Your task to perform on an android device: turn notification dots on Image 0: 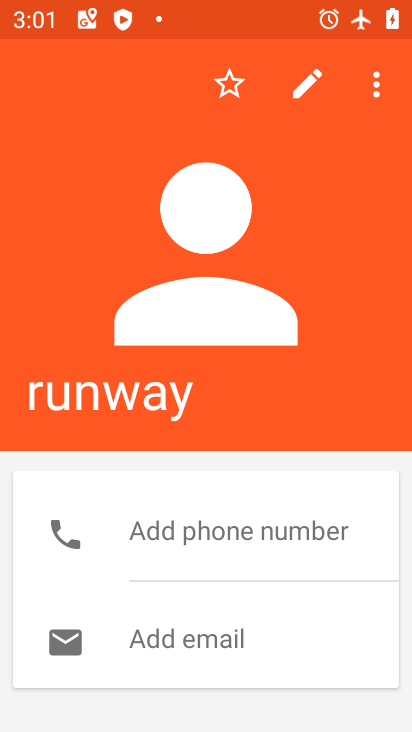
Step 0: press home button
Your task to perform on an android device: turn notification dots on Image 1: 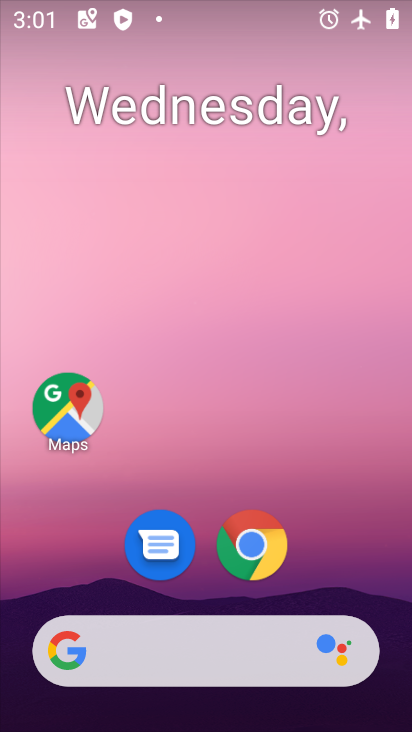
Step 1: drag from (318, 490) to (300, 152)
Your task to perform on an android device: turn notification dots on Image 2: 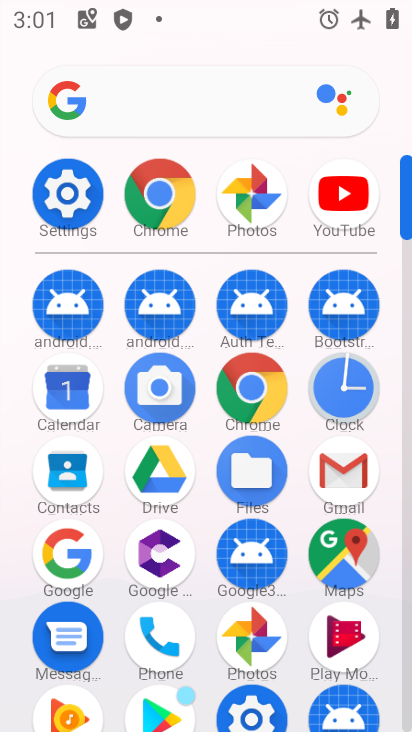
Step 2: click (62, 211)
Your task to perform on an android device: turn notification dots on Image 3: 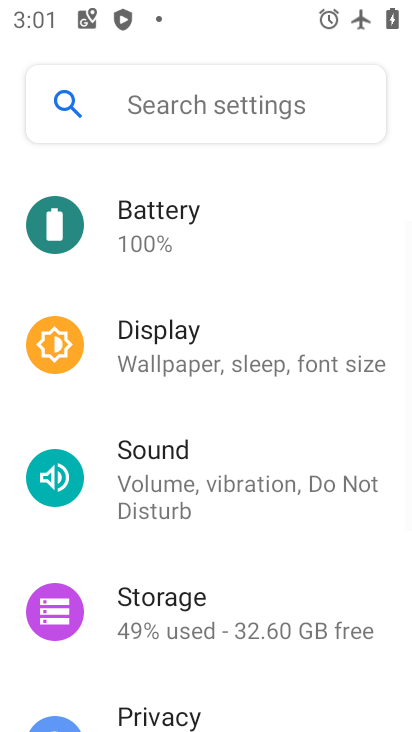
Step 3: drag from (209, 598) to (246, 262)
Your task to perform on an android device: turn notification dots on Image 4: 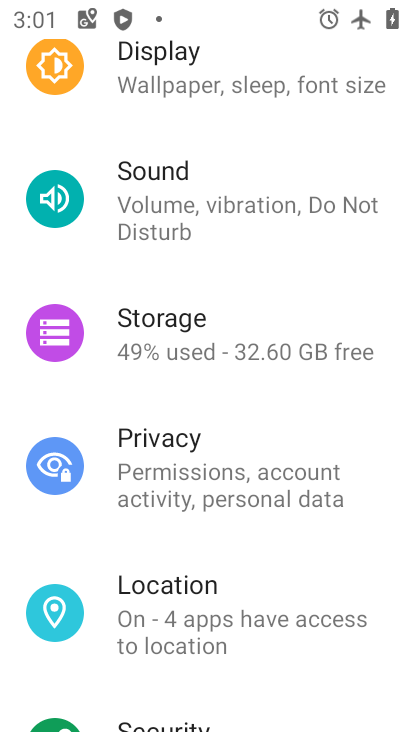
Step 4: drag from (214, 584) to (273, 268)
Your task to perform on an android device: turn notification dots on Image 5: 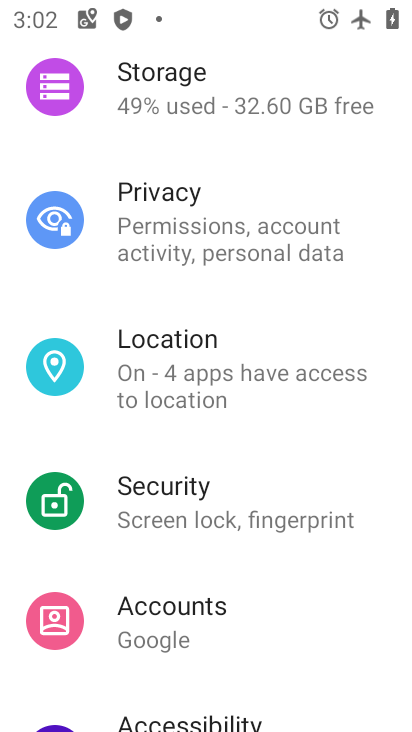
Step 5: drag from (256, 293) to (229, 688)
Your task to perform on an android device: turn notification dots on Image 6: 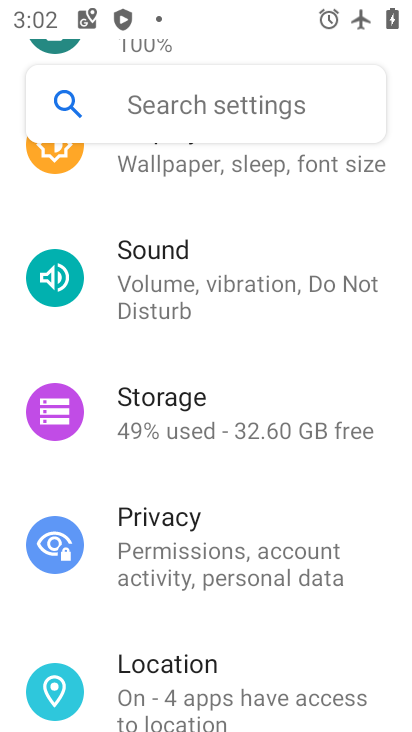
Step 6: drag from (211, 288) to (216, 630)
Your task to perform on an android device: turn notification dots on Image 7: 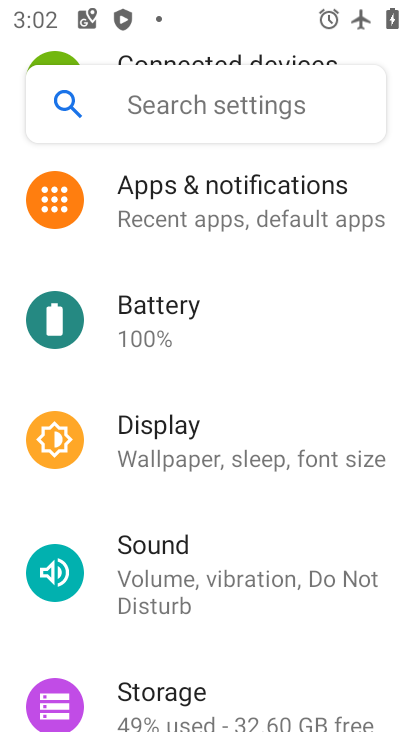
Step 7: click (269, 208)
Your task to perform on an android device: turn notification dots on Image 8: 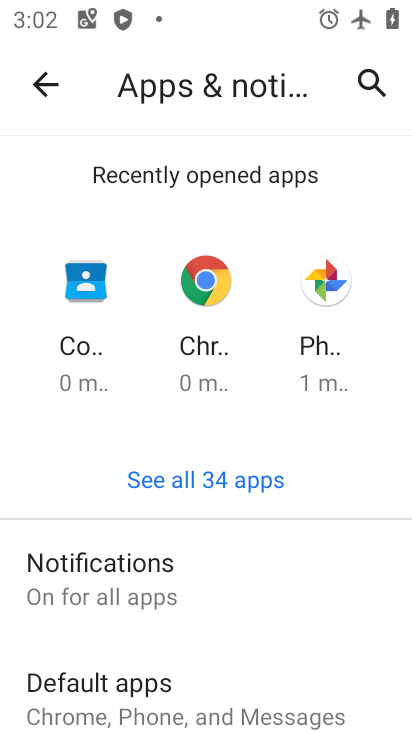
Step 8: click (133, 572)
Your task to perform on an android device: turn notification dots on Image 9: 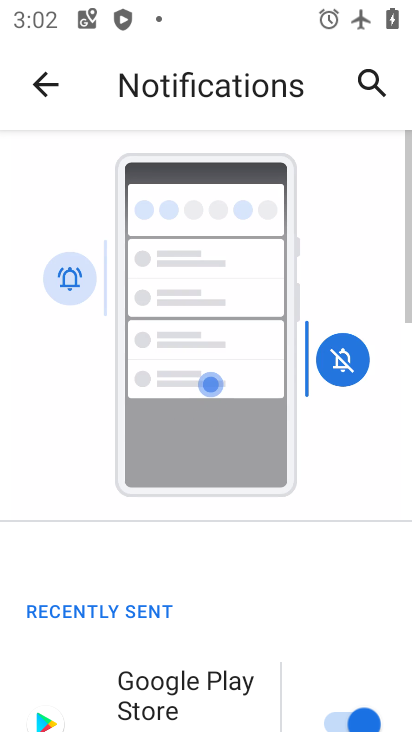
Step 9: drag from (198, 584) to (225, 159)
Your task to perform on an android device: turn notification dots on Image 10: 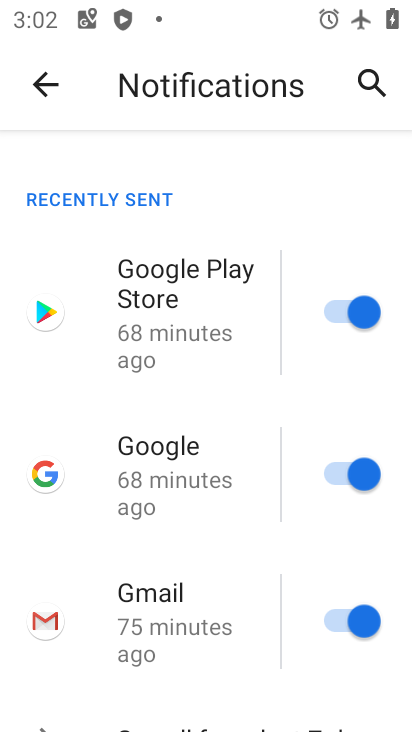
Step 10: drag from (188, 514) to (221, 106)
Your task to perform on an android device: turn notification dots on Image 11: 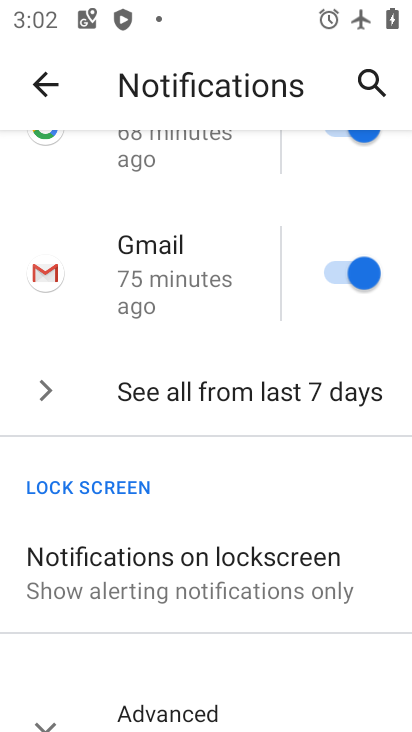
Step 11: drag from (198, 503) to (194, 154)
Your task to perform on an android device: turn notification dots on Image 12: 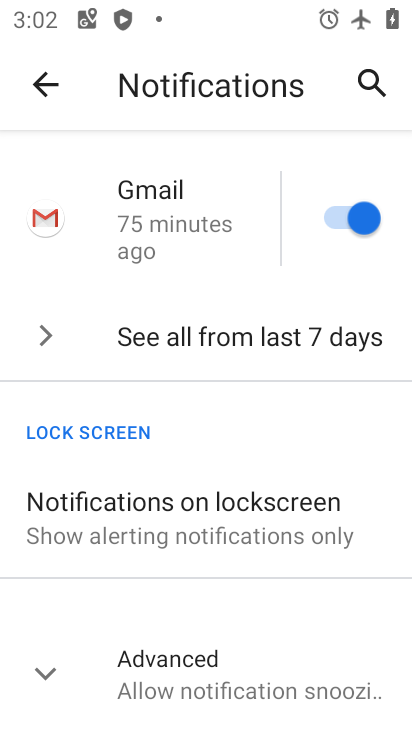
Step 12: click (171, 661)
Your task to perform on an android device: turn notification dots on Image 13: 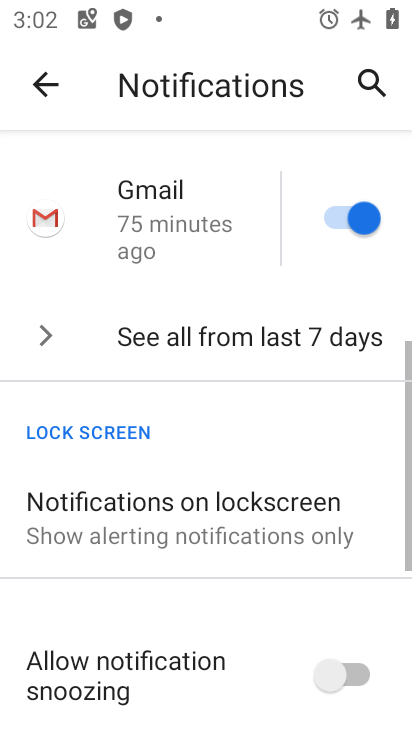
Step 13: task complete